Your task to perform on an android device: When is my next meeting? Image 0: 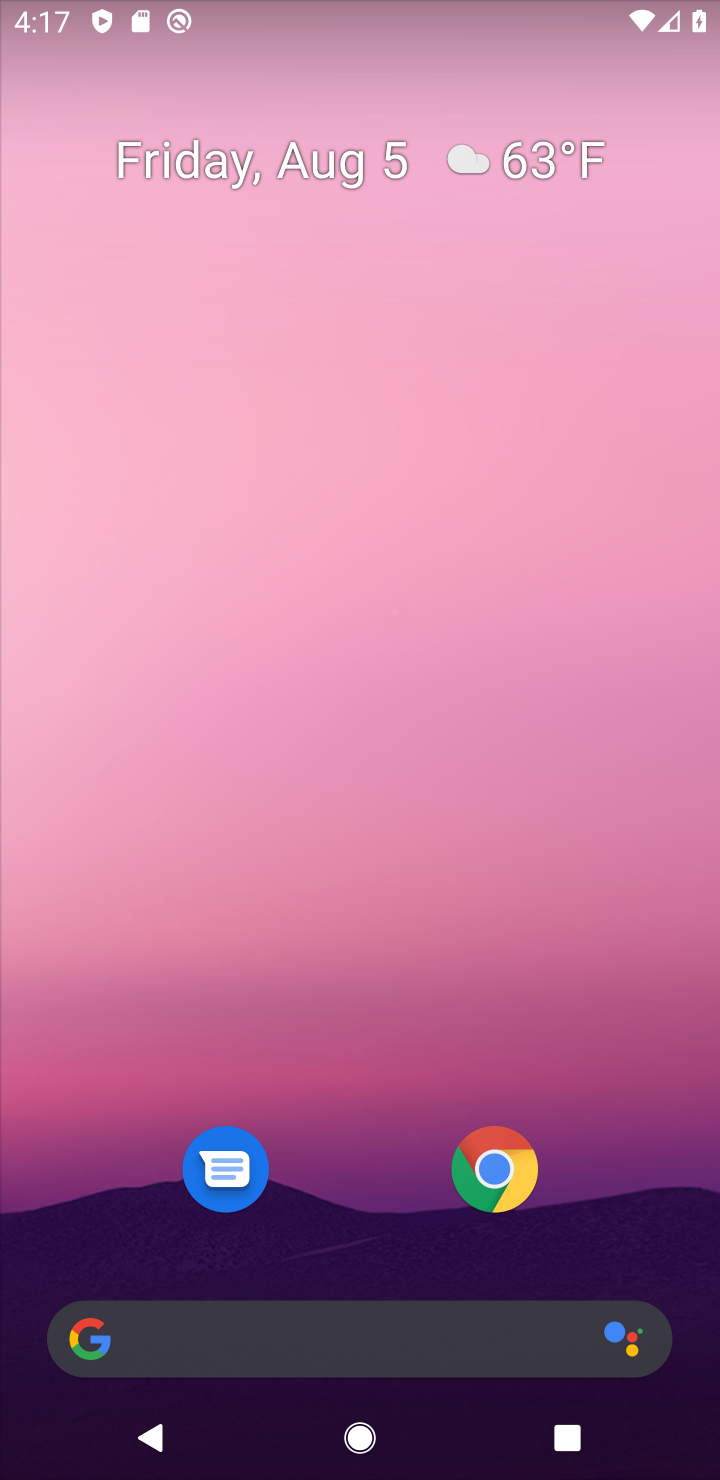
Step 0: drag from (302, 1285) to (302, 368)
Your task to perform on an android device: When is my next meeting? Image 1: 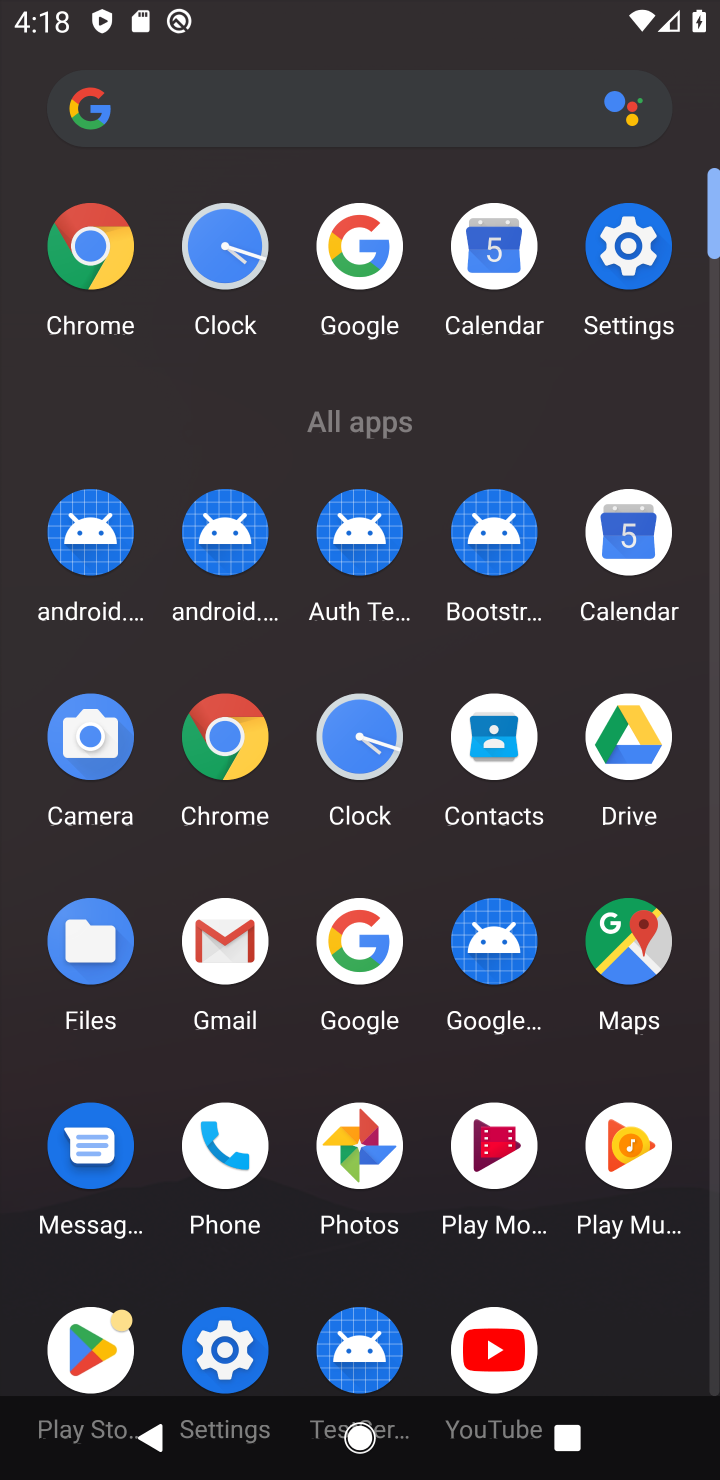
Step 1: click (619, 561)
Your task to perform on an android device: When is my next meeting? Image 2: 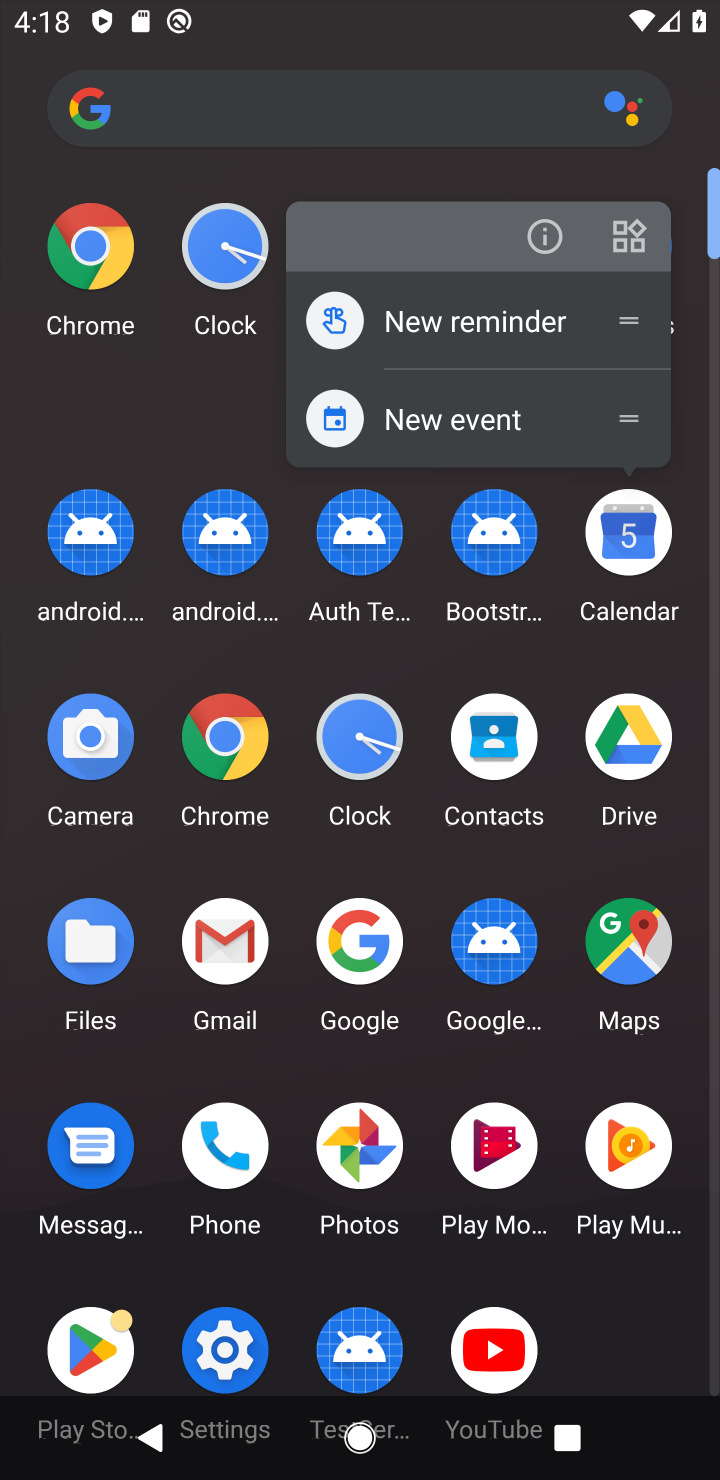
Step 2: click (611, 541)
Your task to perform on an android device: When is my next meeting? Image 3: 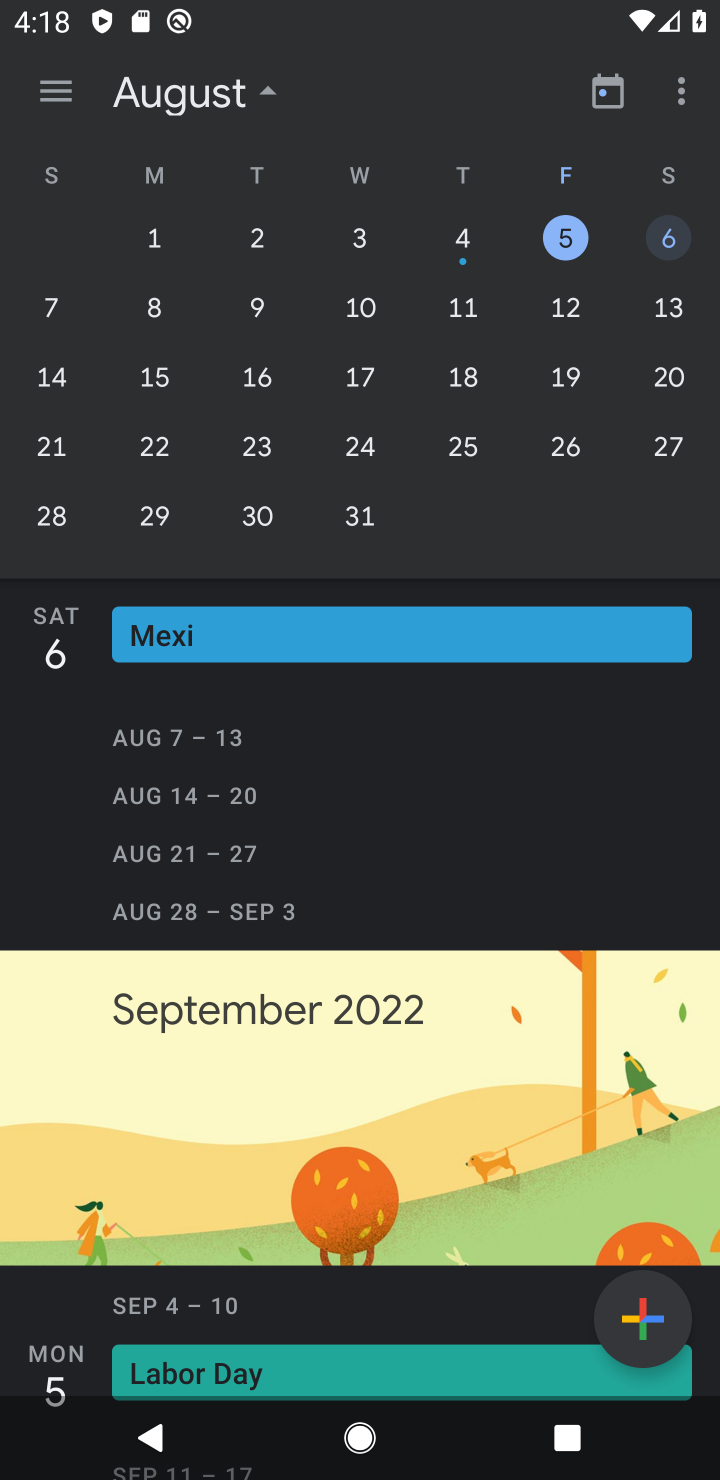
Step 3: click (568, 255)
Your task to perform on an android device: When is my next meeting? Image 4: 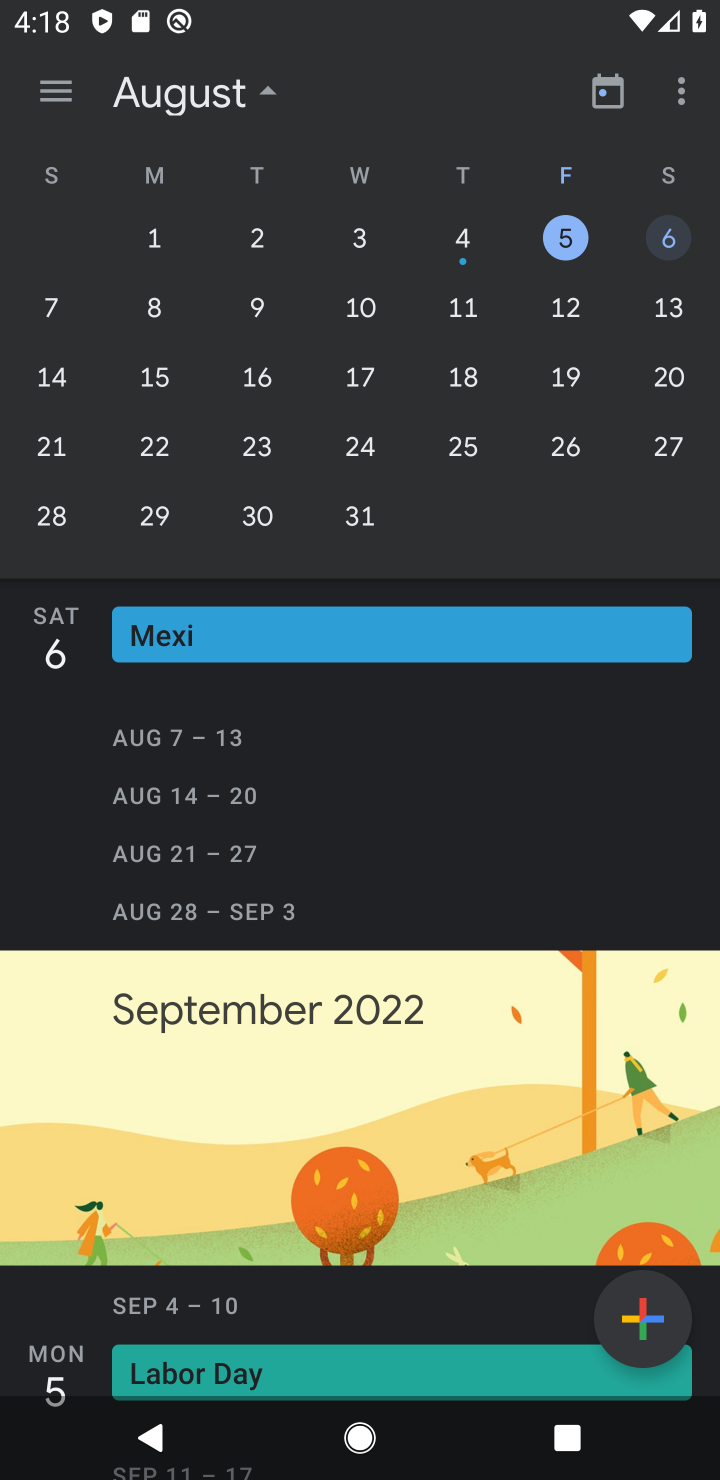
Step 4: click (648, 251)
Your task to perform on an android device: When is my next meeting? Image 5: 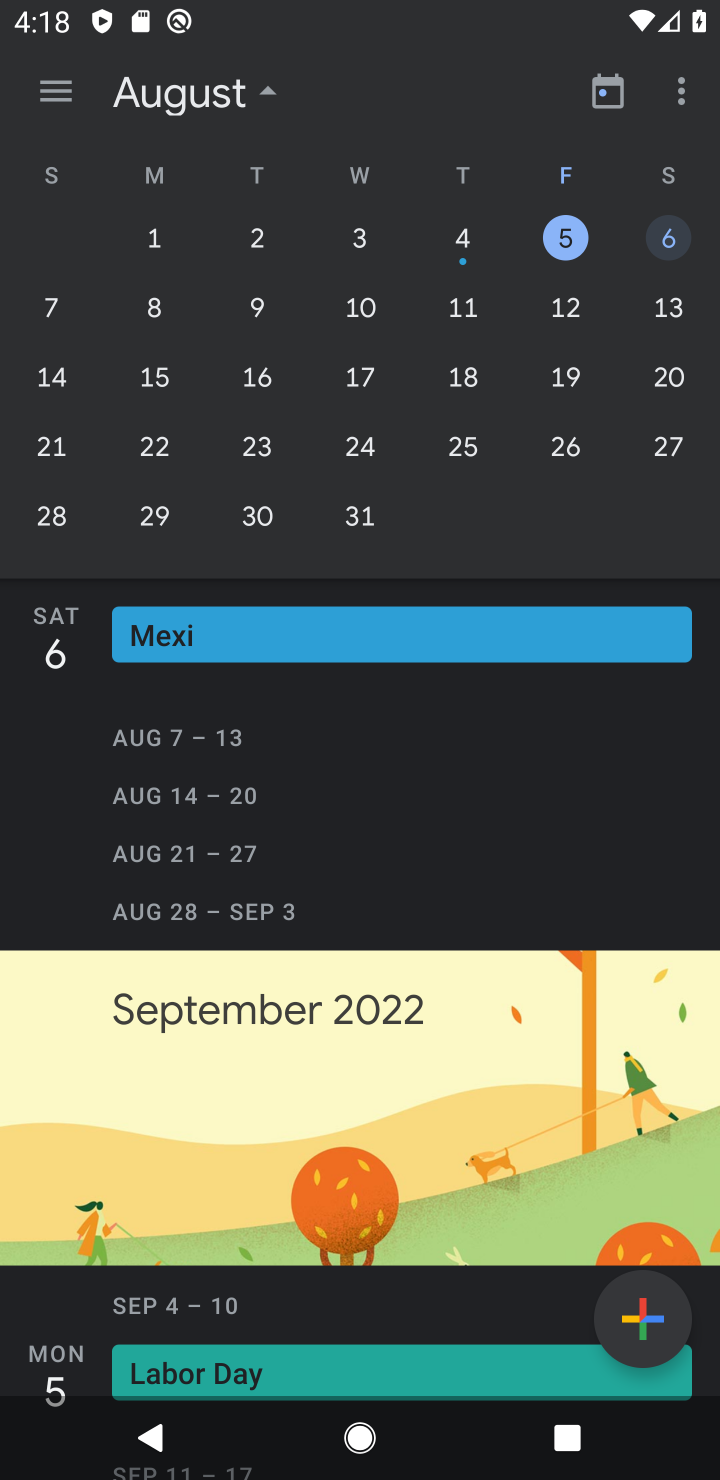
Step 5: task complete